Your task to perform on an android device: create a new album in the google photos Image 0: 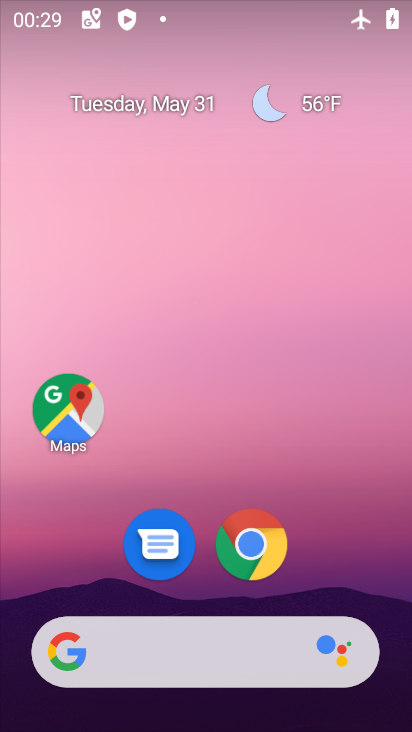
Step 0: drag from (364, 521) to (246, 86)
Your task to perform on an android device: create a new album in the google photos Image 1: 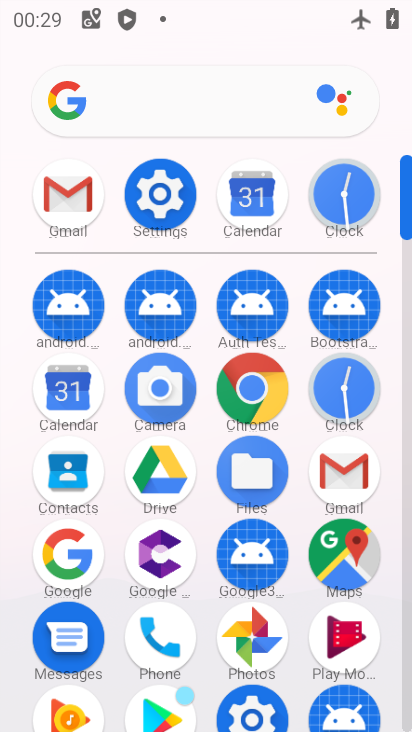
Step 1: click (252, 637)
Your task to perform on an android device: create a new album in the google photos Image 2: 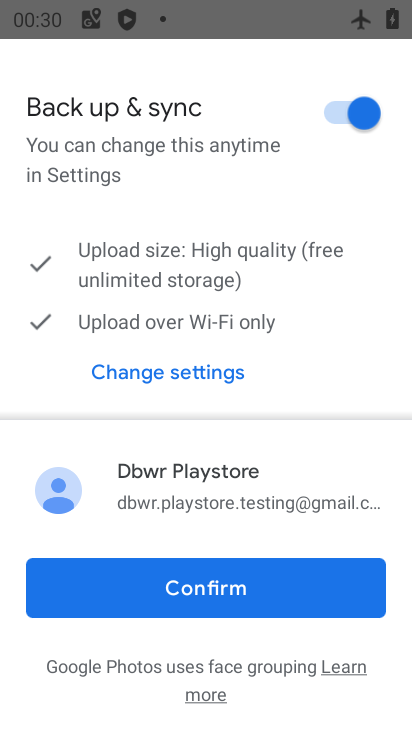
Step 2: click (207, 593)
Your task to perform on an android device: create a new album in the google photos Image 3: 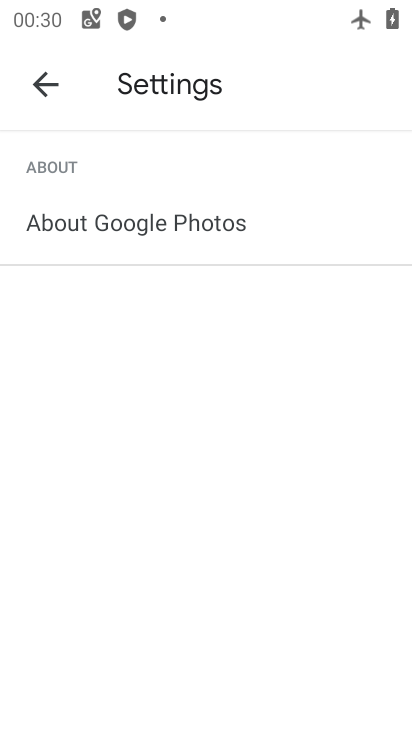
Step 3: click (54, 94)
Your task to perform on an android device: create a new album in the google photos Image 4: 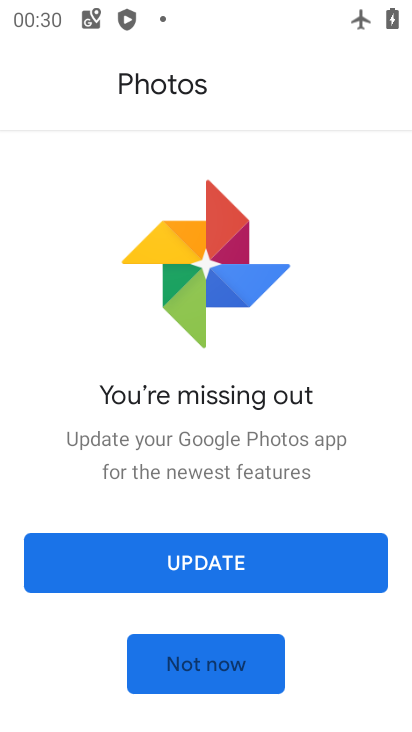
Step 4: click (185, 558)
Your task to perform on an android device: create a new album in the google photos Image 5: 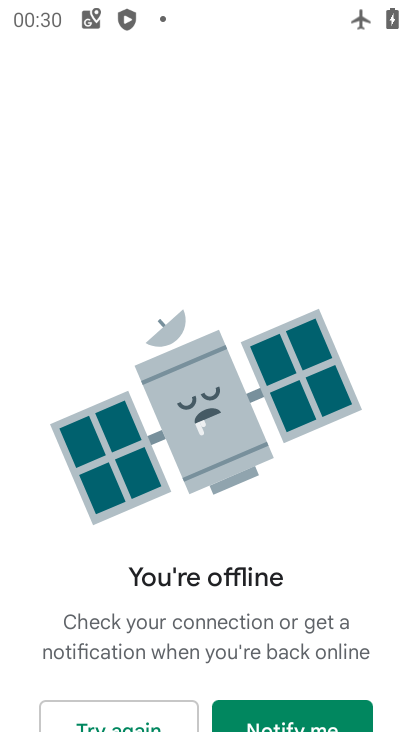
Step 5: task complete